Your task to perform on an android device: toggle improve location accuracy Image 0: 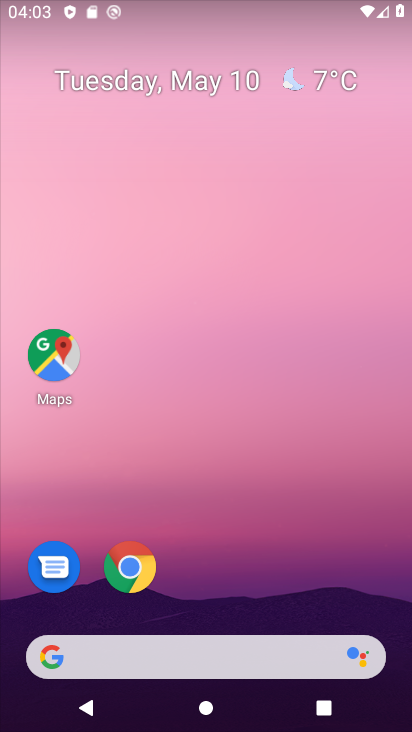
Step 0: drag from (236, 532) to (219, 12)
Your task to perform on an android device: toggle improve location accuracy Image 1: 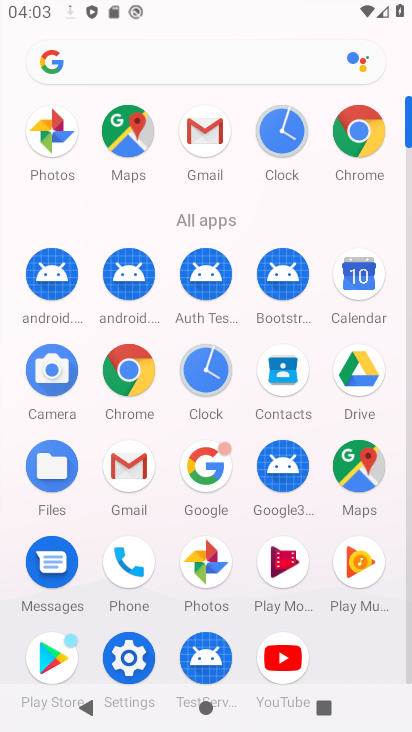
Step 1: click (132, 660)
Your task to perform on an android device: toggle improve location accuracy Image 2: 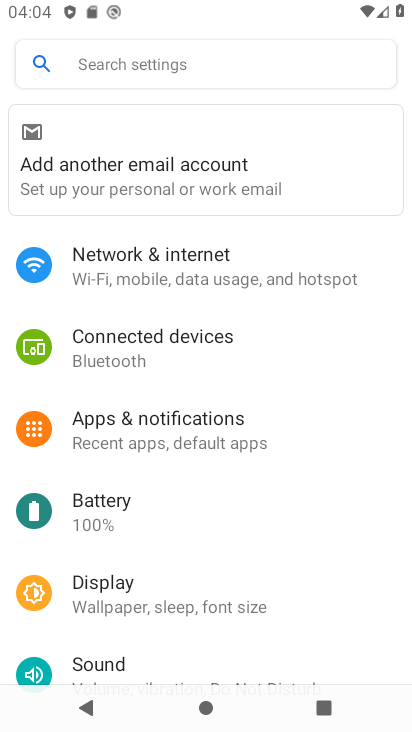
Step 2: drag from (178, 528) to (186, 366)
Your task to perform on an android device: toggle improve location accuracy Image 3: 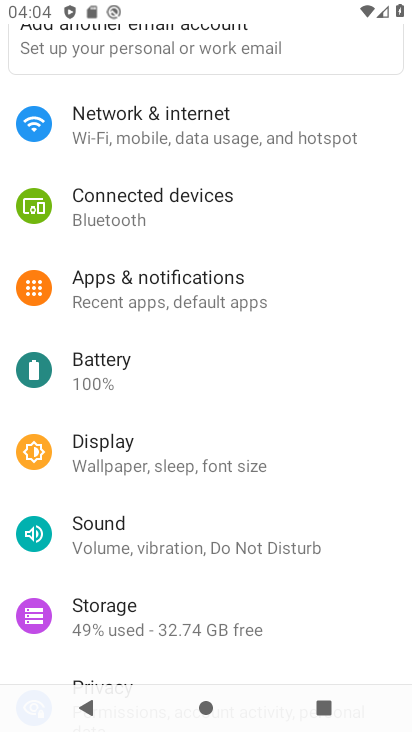
Step 3: drag from (175, 484) to (210, 357)
Your task to perform on an android device: toggle improve location accuracy Image 4: 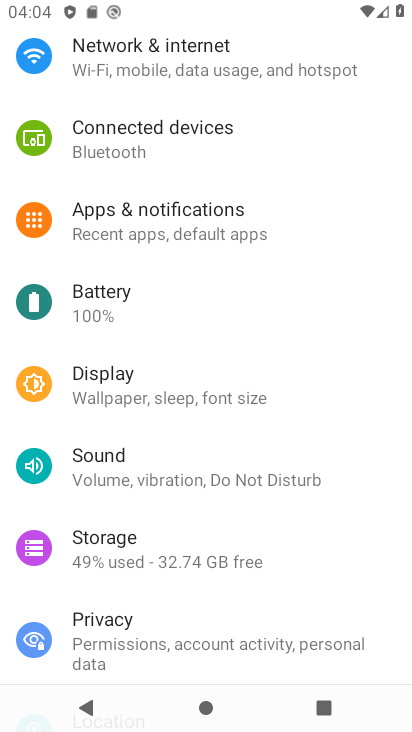
Step 4: drag from (173, 529) to (171, 397)
Your task to perform on an android device: toggle improve location accuracy Image 5: 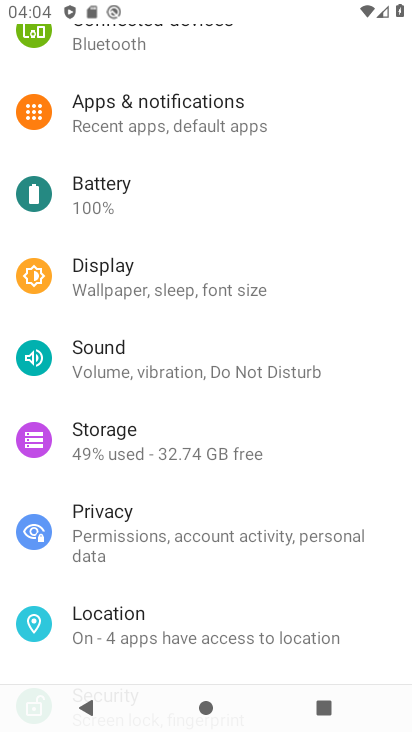
Step 5: drag from (146, 574) to (189, 457)
Your task to perform on an android device: toggle improve location accuracy Image 6: 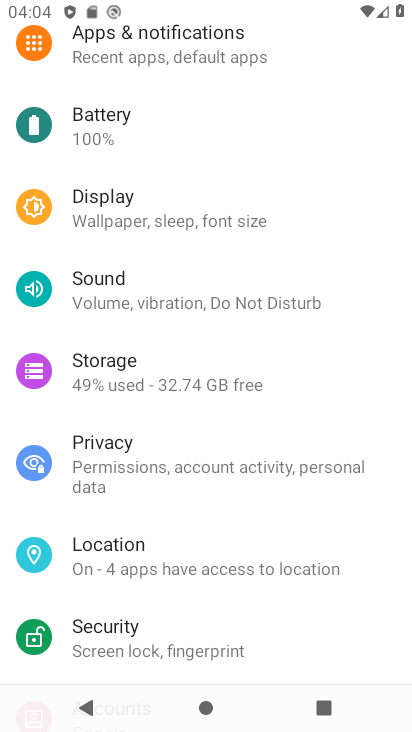
Step 6: click (102, 548)
Your task to perform on an android device: toggle improve location accuracy Image 7: 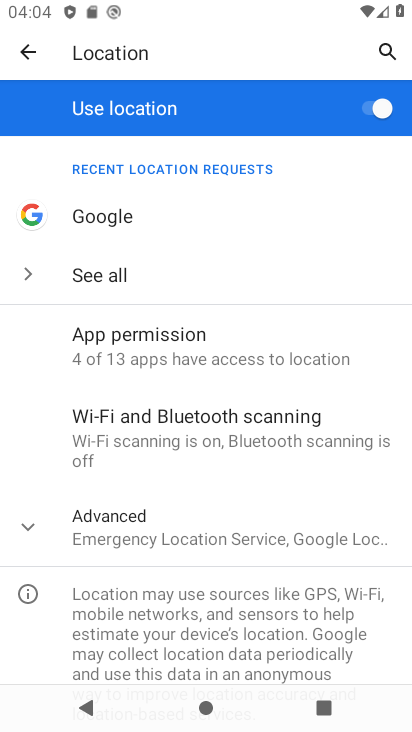
Step 7: click (114, 530)
Your task to perform on an android device: toggle improve location accuracy Image 8: 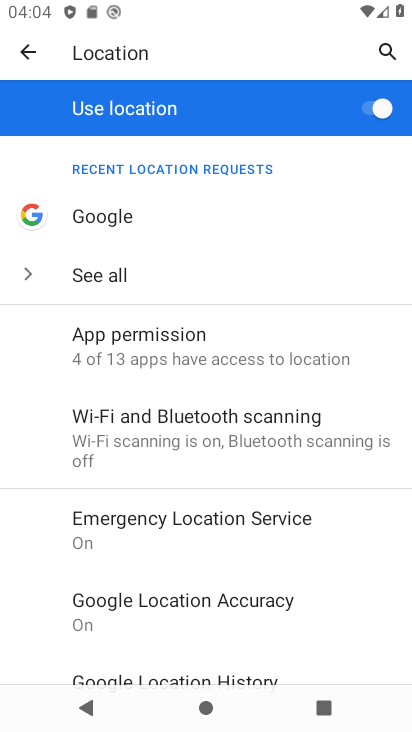
Step 8: drag from (163, 577) to (221, 454)
Your task to perform on an android device: toggle improve location accuracy Image 9: 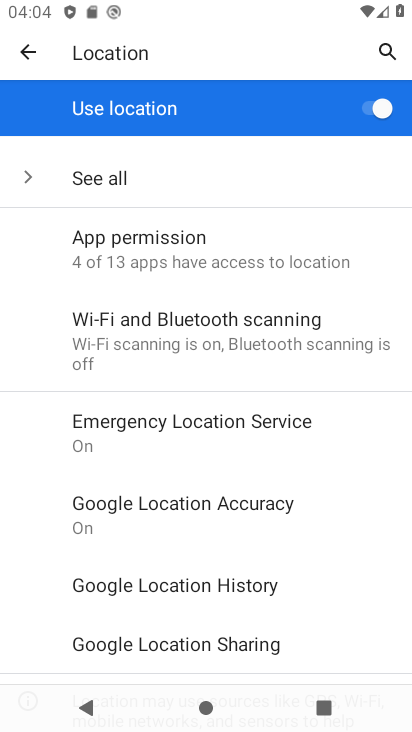
Step 9: click (202, 507)
Your task to perform on an android device: toggle improve location accuracy Image 10: 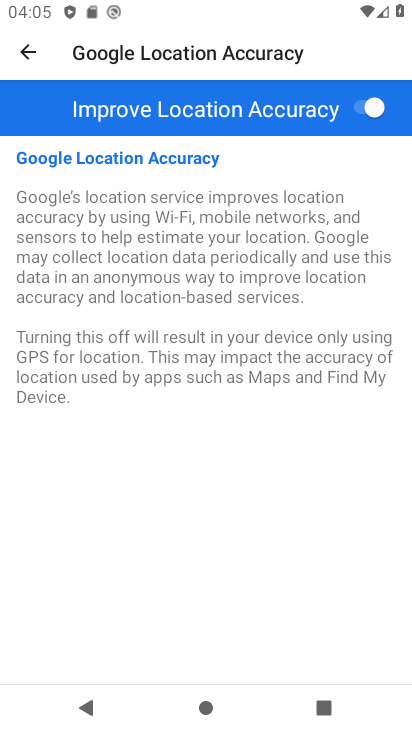
Step 10: click (380, 102)
Your task to perform on an android device: toggle improve location accuracy Image 11: 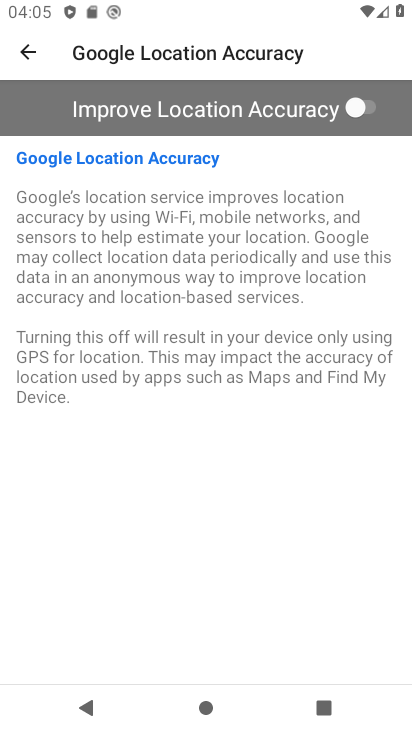
Step 11: task complete